Your task to perform on an android device: What is the recent news? Image 0: 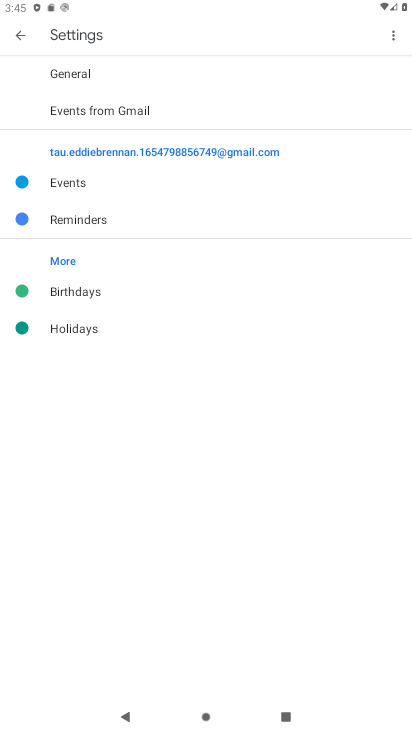
Step 0: press home button
Your task to perform on an android device: What is the recent news? Image 1: 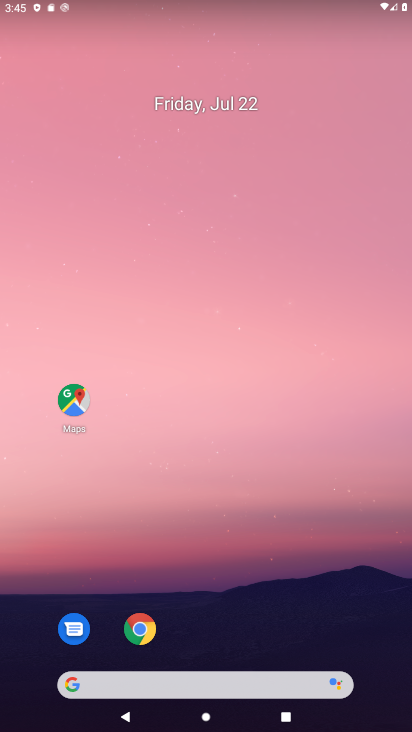
Step 1: drag from (315, 616) to (239, 79)
Your task to perform on an android device: What is the recent news? Image 2: 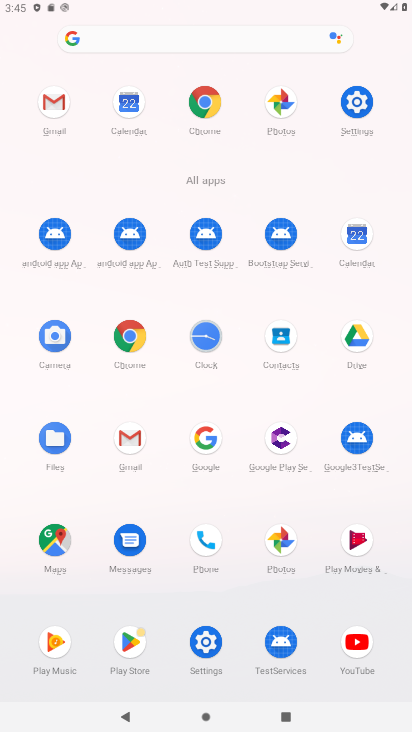
Step 2: click (201, 99)
Your task to perform on an android device: What is the recent news? Image 3: 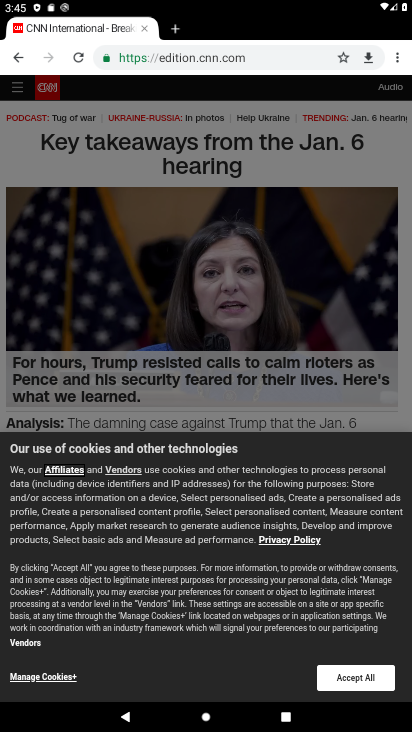
Step 3: click (230, 68)
Your task to perform on an android device: What is the recent news? Image 4: 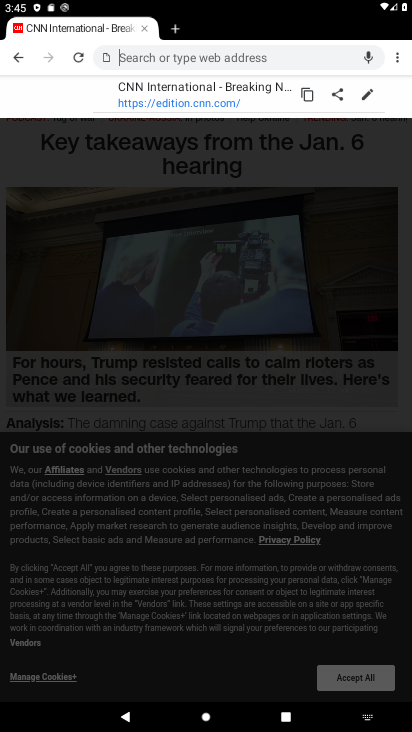
Step 4: type "news"
Your task to perform on an android device: What is the recent news? Image 5: 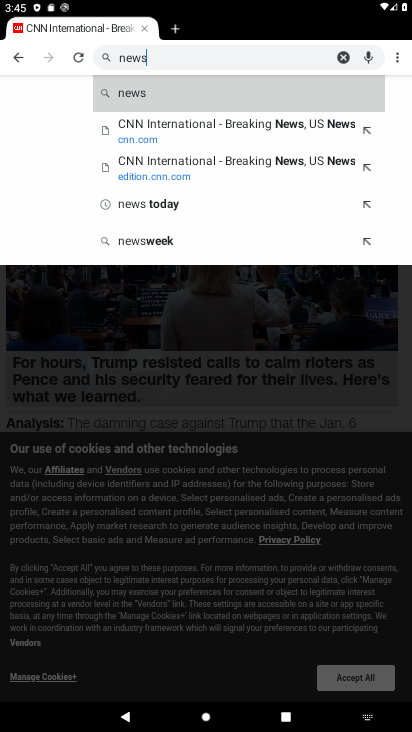
Step 5: click (156, 96)
Your task to perform on an android device: What is the recent news? Image 6: 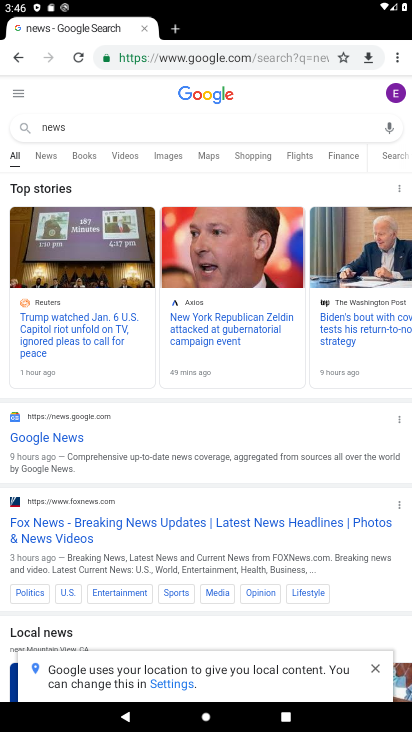
Step 6: click (55, 436)
Your task to perform on an android device: What is the recent news? Image 7: 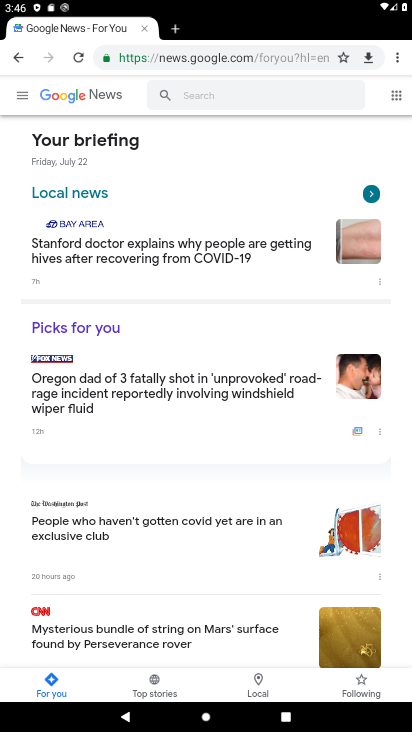
Step 7: task complete